Your task to perform on an android device: Open Google Image 0: 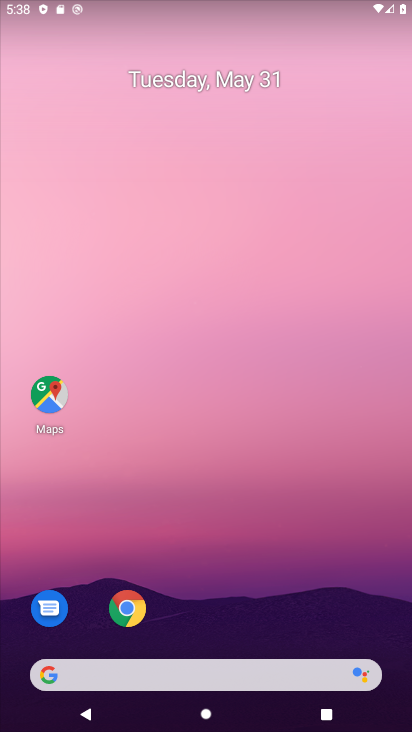
Step 0: drag from (194, 658) to (159, 135)
Your task to perform on an android device: Open Google Image 1: 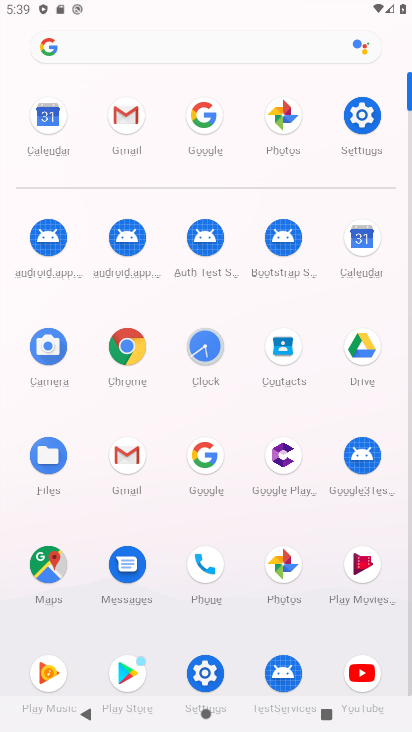
Step 1: click (207, 454)
Your task to perform on an android device: Open Google Image 2: 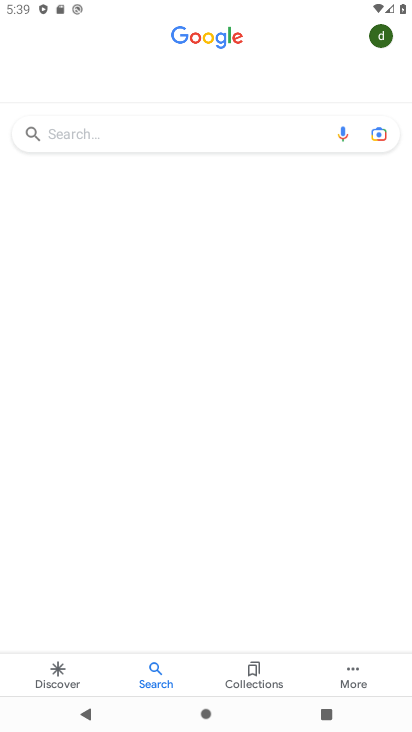
Step 2: task complete